Your task to perform on an android device: Open Google Chrome Image 0: 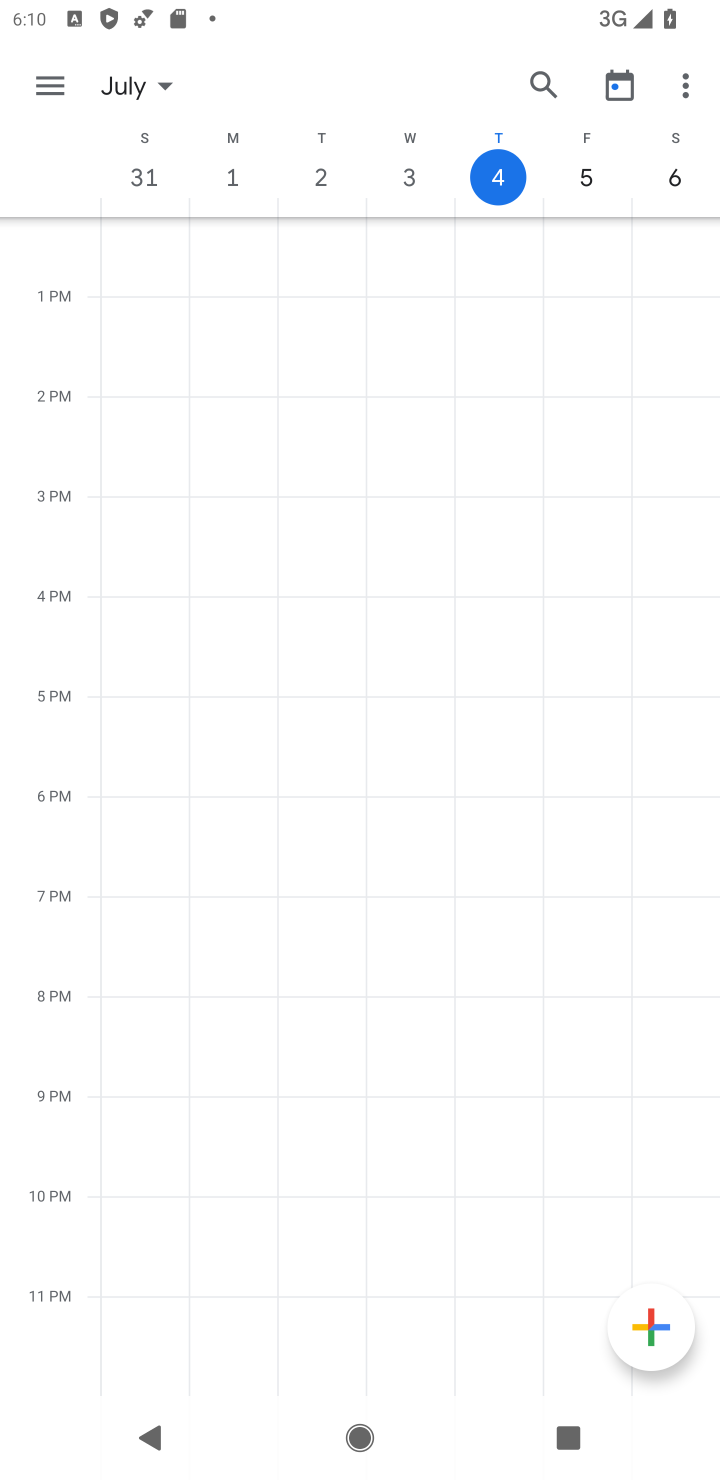
Step 0: press home button
Your task to perform on an android device: Open Google Chrome Image 1: 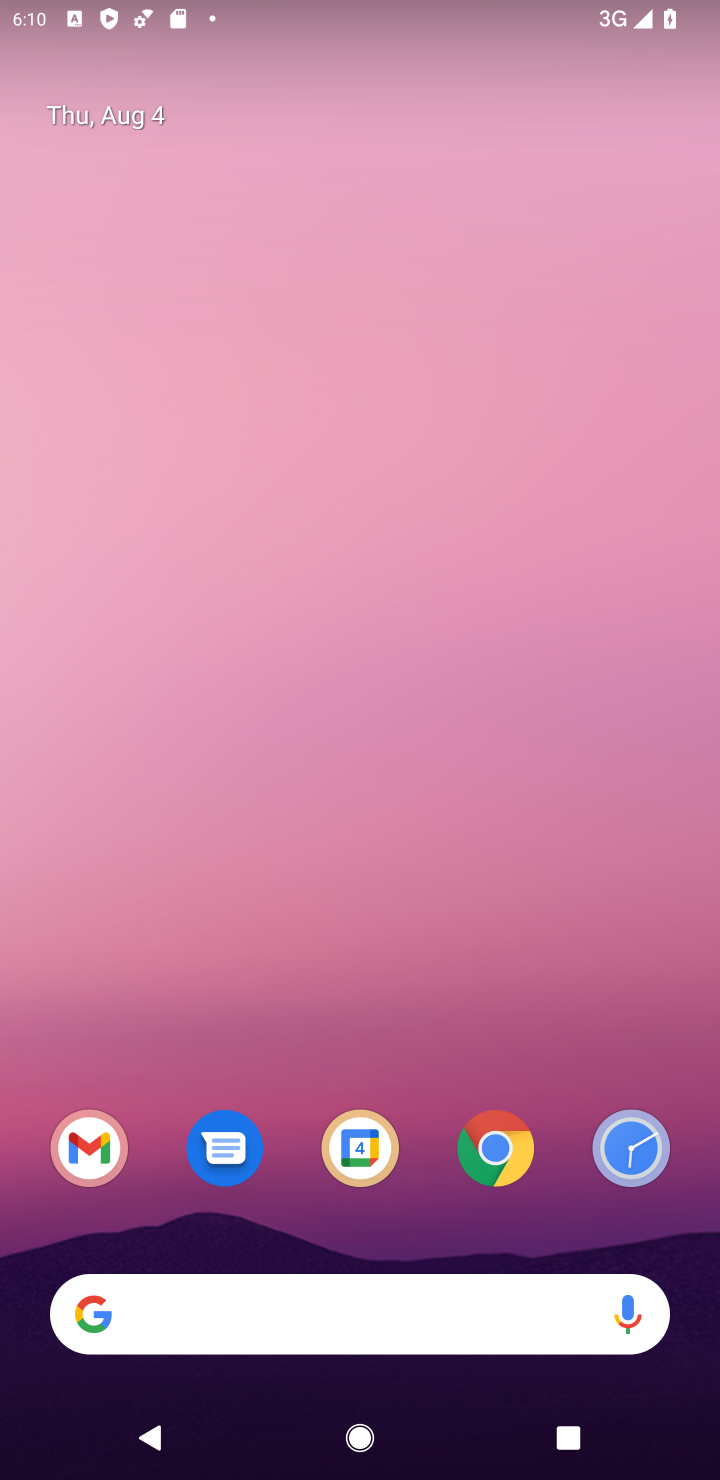
Step 1: click (497, 1146)
Your task to perform on an android device: Open Google Chrome Image 2: 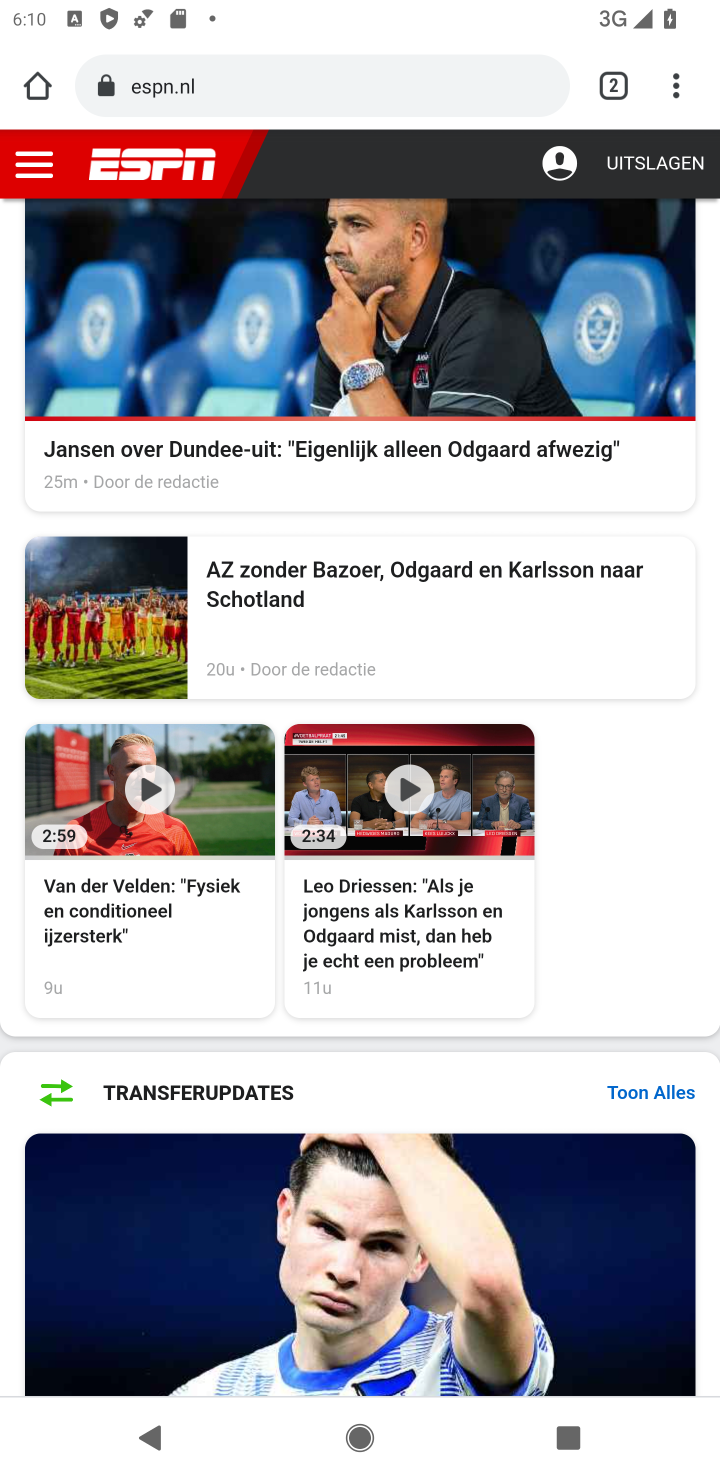
Step 2: task complete